Your task to perform on an android device: add a contact in the contacts app Image 0: 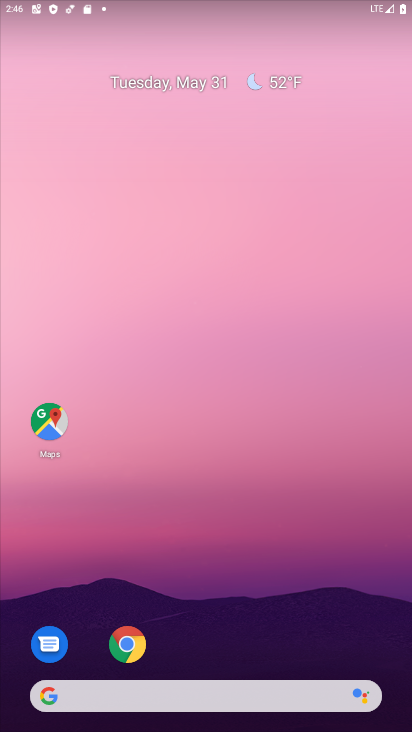
Step 0: press home button
Your task to perform on an android device: add a contact in the contacts app Image 1: 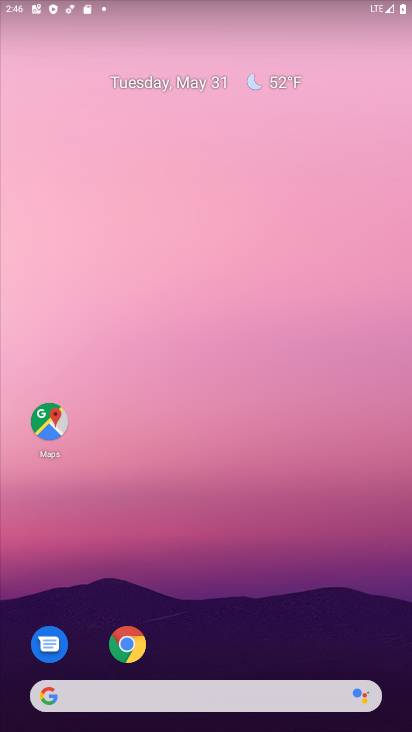
Step 1: drag from (268, 544) to (265, 224)
Your task to perform on an android device: add a contact in the contacts app Image 2: 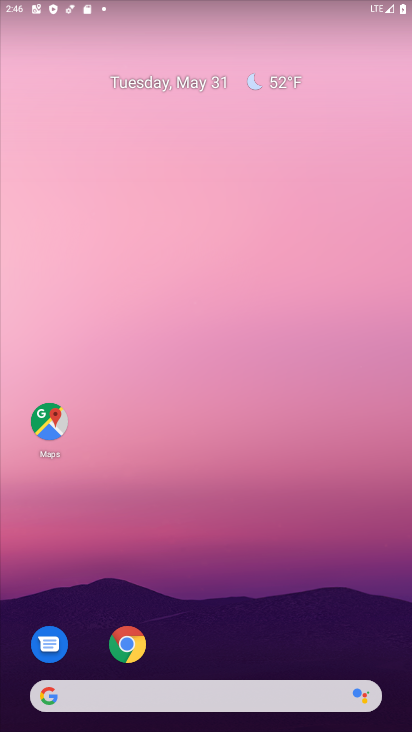
Step 2: drag from (335, 537) to (282, 12)
Your task to perform on an android device: add a contact in the contacts app Image 3: 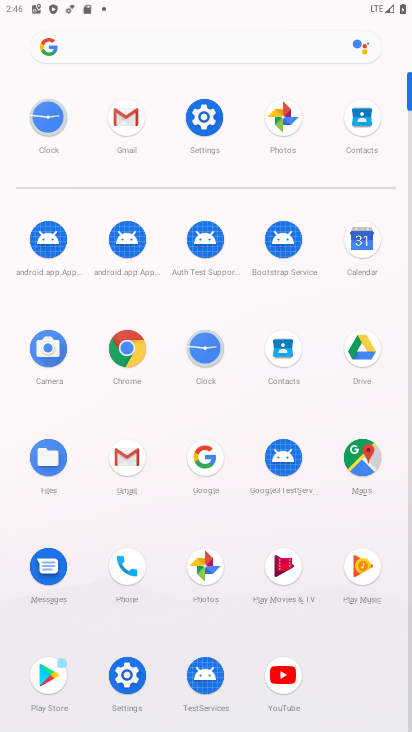
Step 3: click (354, 118)
Your task to perform on an android device: add a contact in the contacts app Image 4: 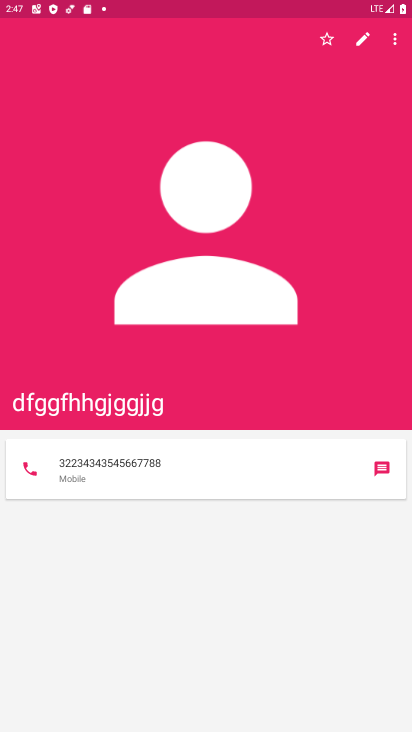
Step 4: press back button
Your task to perform on an android device: add a contact in the contacts app Image 5: 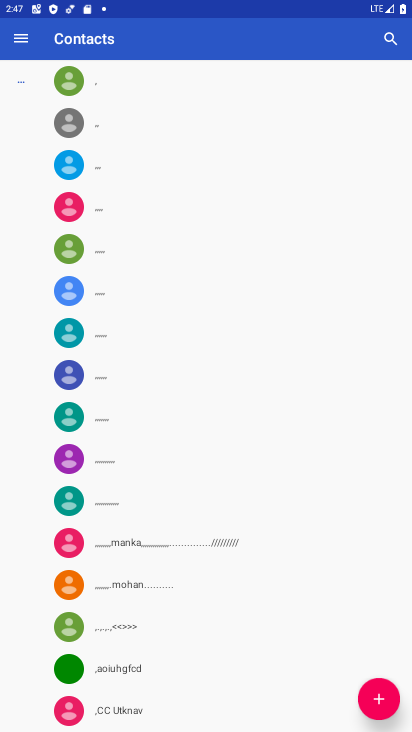
Step 5: click (381, 699)
Your task to perform on an android device: add a contact in the contacts app Image 6: 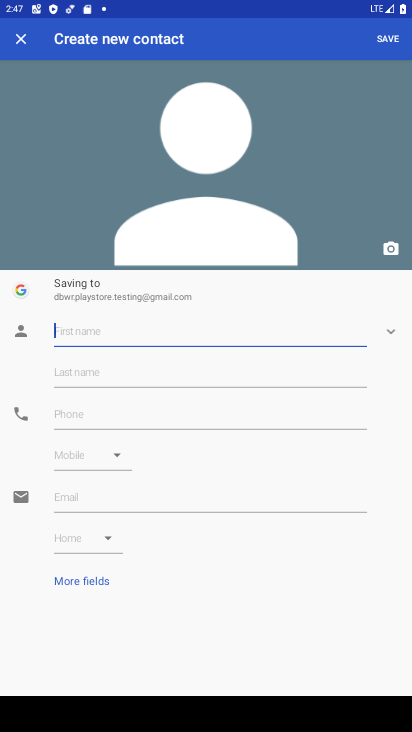
Step 6: click (141, 341)
Your task to perform on an android device: add a contact in the contacts app Image 7: 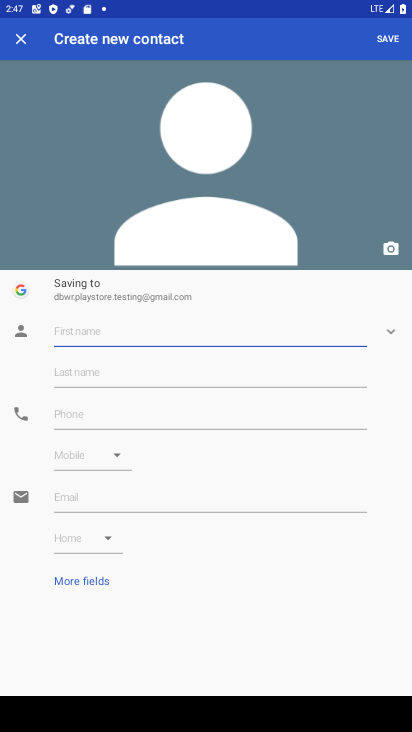
Step 7: type "sdfgfghhghfhhg"
Your task to perform on an android device: add a contact in the contacts app Image 8: 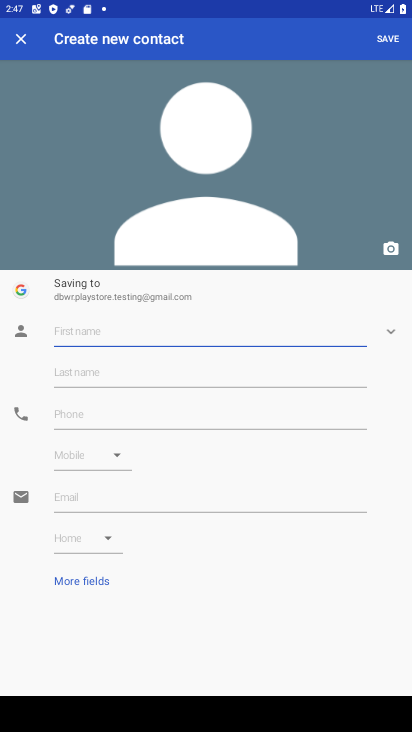
Step 8: click (100, 407)
Your task to perform on an android device: add a contact in the contacts app Image 9: 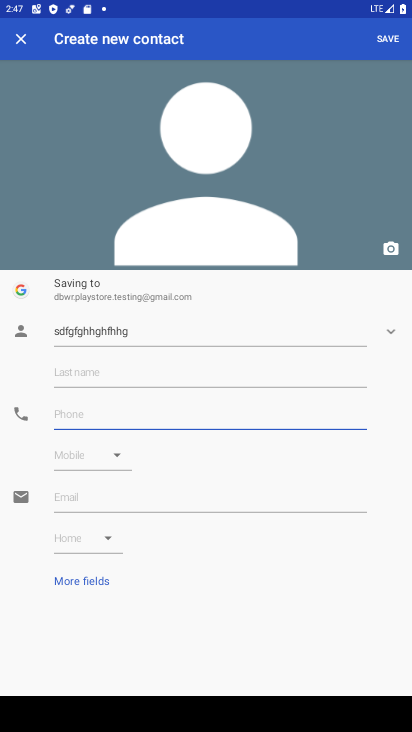
Step 9: click (101, 417)
Your task to perform on an android device: add a contact in the contacts app Image 10: 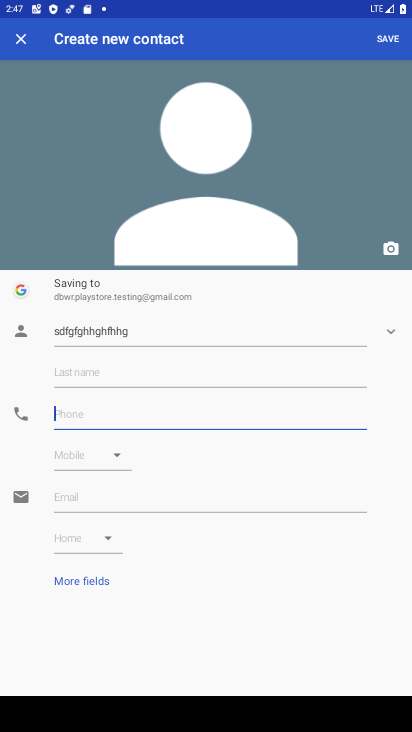
Step 10: type "34343554645647768"
Your task to perform on an android device: add a contact in the contacts app Image 11: 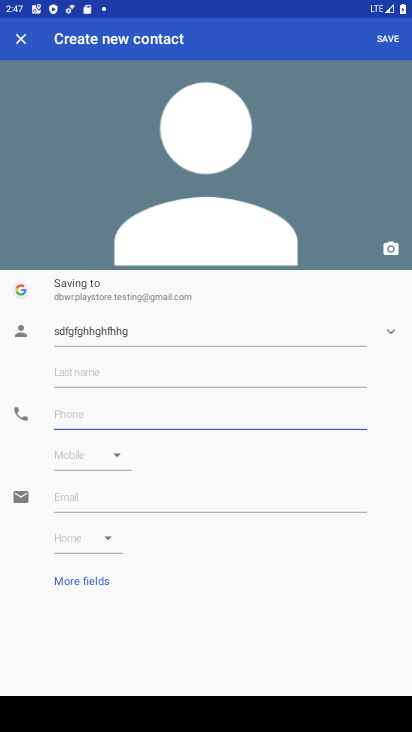
Step 11: click (206, 417)
Your task to perform on an android device: add a contact in the contacts app Image 12: 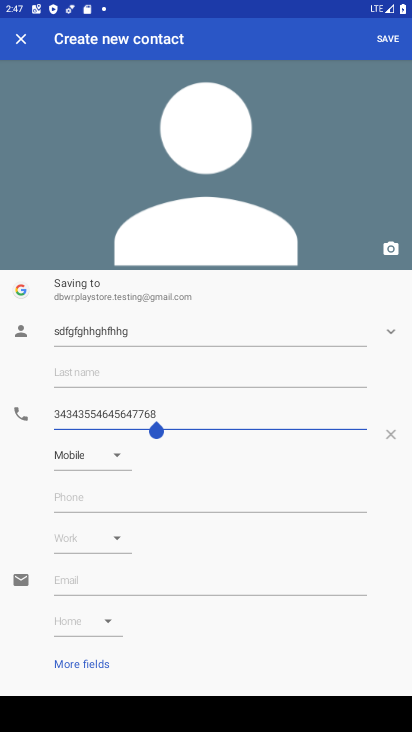
Step 12: click (382, 35)
Your task to perform on an android device: add a contact in the contacts app Image 13: 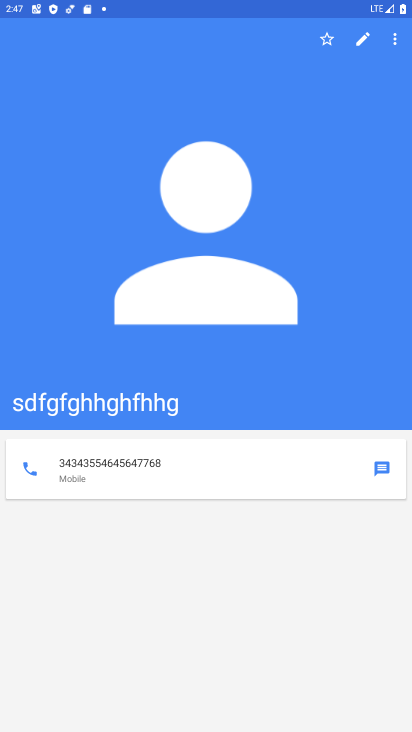
Step 13: task complete